Your task to perform on an android device: Go to wifi settings Image 0: 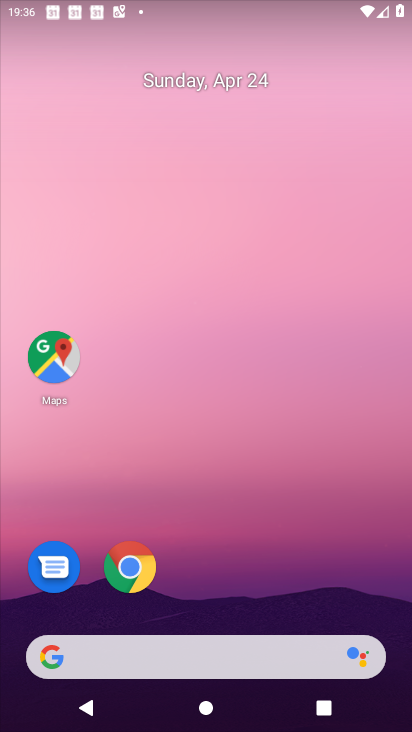
Step 0: drag from (273, 668) to (207, 181)
Your task to perform on an android device: Go to wifi settings Image 1: 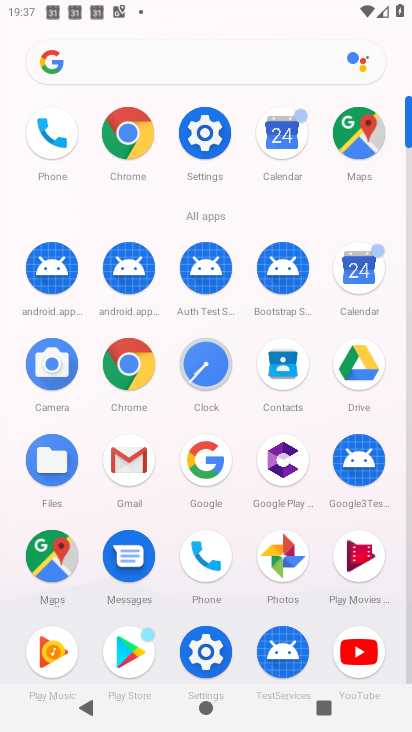
Step 1: click (202, 130)
Your task to perform on an android device: Go to wifi settings Image 2: 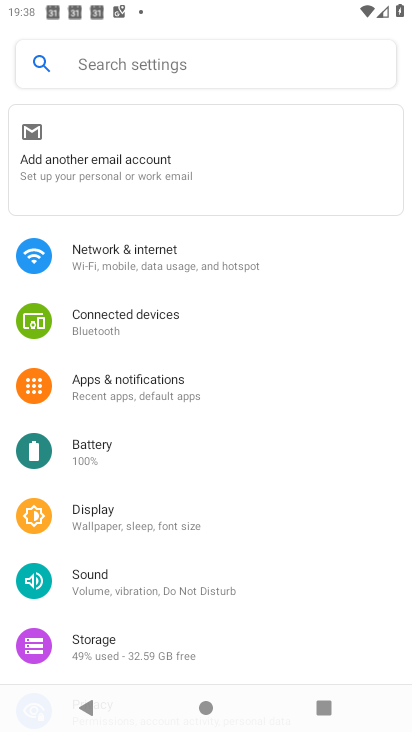
Step 2: click (162, 249)
Your task to perform on an android device: Go to wifi settings Image 3: 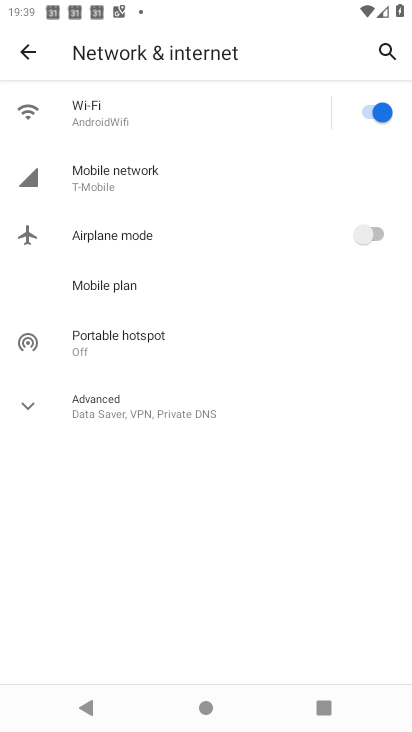
Step 3: click (146, 117)
Your task to perform on an android device: Go to wifi settings Image 4: 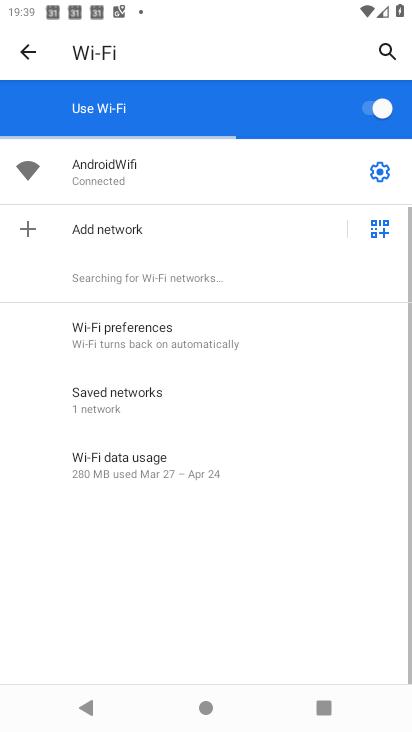
Step 4: task complete